Your task to perform on an android device: open app "File Manager" (install if not already installed) Image 0: 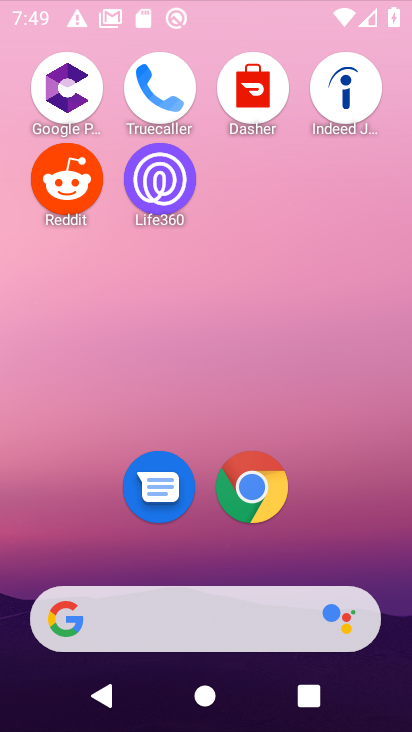
Step 0: press home button
Your task to perform on an android device: open app "File Manager" (install if not already installed) Image 1: 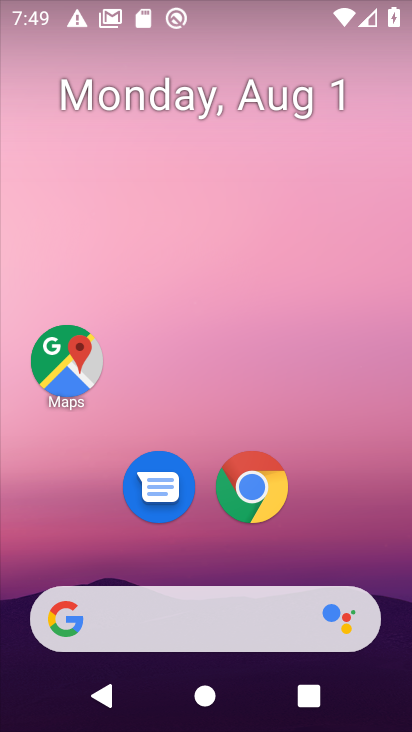
Step 1: drag from (377, 554) to (342, 80)
Your task to perform on an android device: open app "File Manager" (install if not already installed) Image 2: 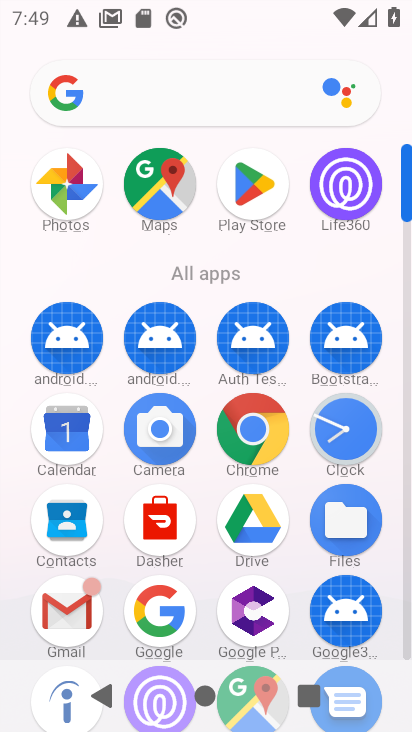
Step 2: click (252, 178)
Your task to perform on an android device: open app "File Manager" (install if not already installed) Image 3: 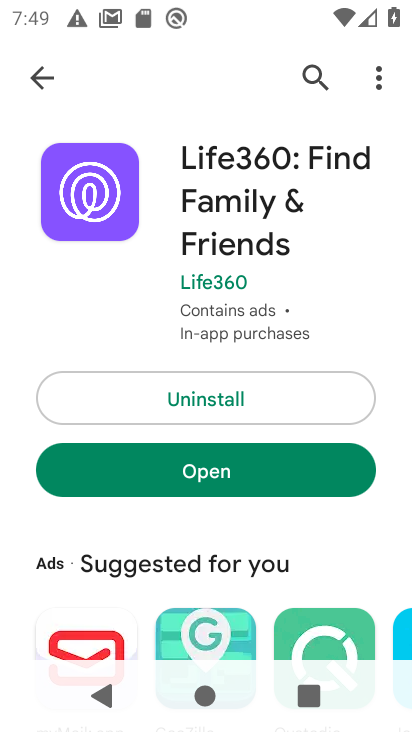
Step 3: click (311, 73)
Your task to perform on an android device: open app "File Manager" (install if not already installed) Image 4: 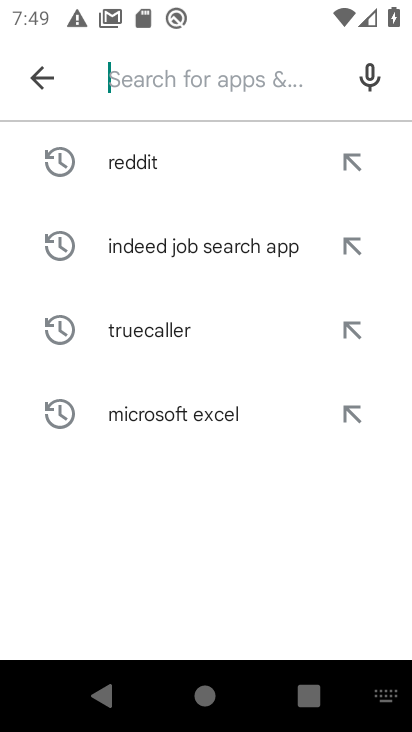
Step 4: type "file manager"
Your task to perform on an android device: open app "File Manager" (install if not already installed) Image 5: 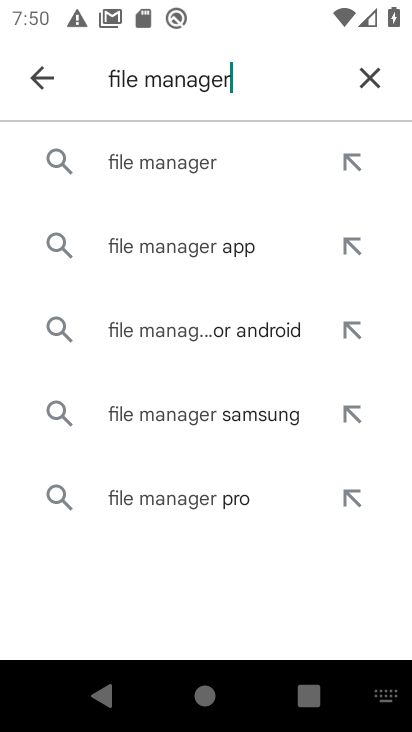
Step 5: click (289, 170)
Your task to perform on an android device: open app "File Manager" (install if not already installed) Image 6: 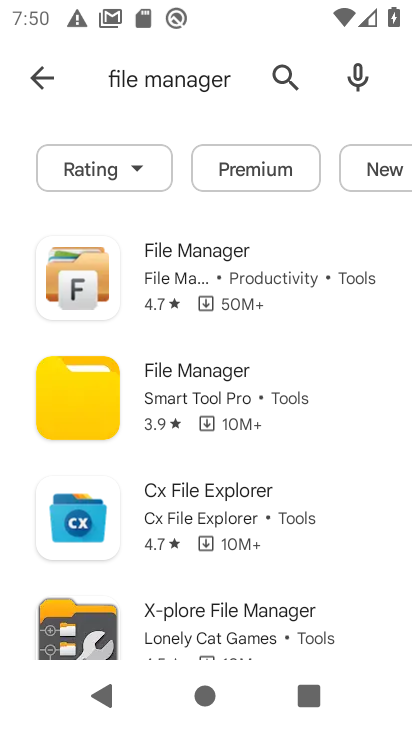
Step 6: task complete